Your task to perform on an android device: check out phone information Image 0: 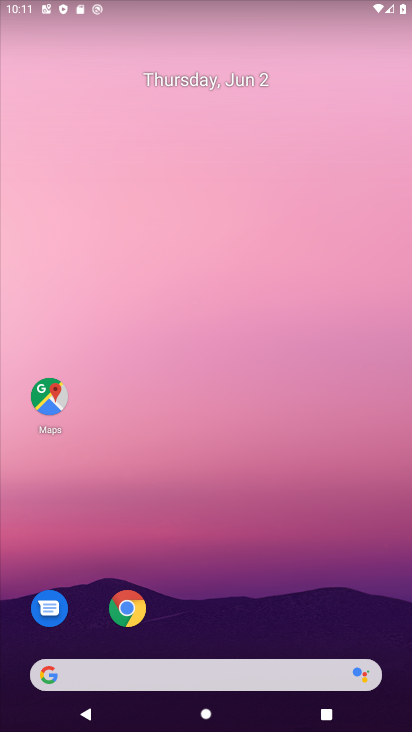
Step 0: drag from (173, 652) to (270, 107)
Your task to perform on an android device: check out phone information Image 1: 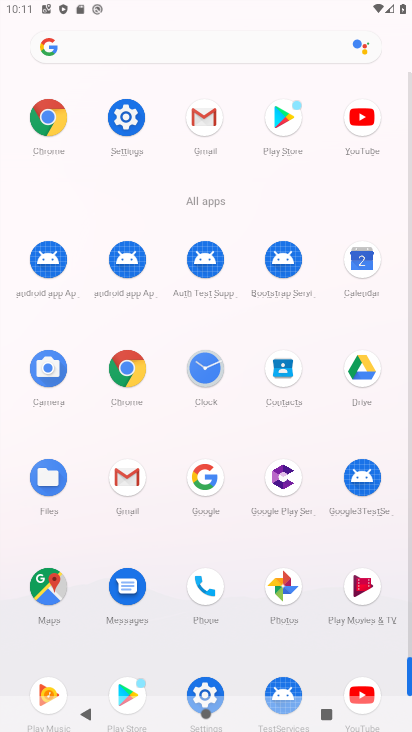
Step 1: drag from (204, 591) to (247, 340)
Your task to perform on an android device: check out phone information Image 2: 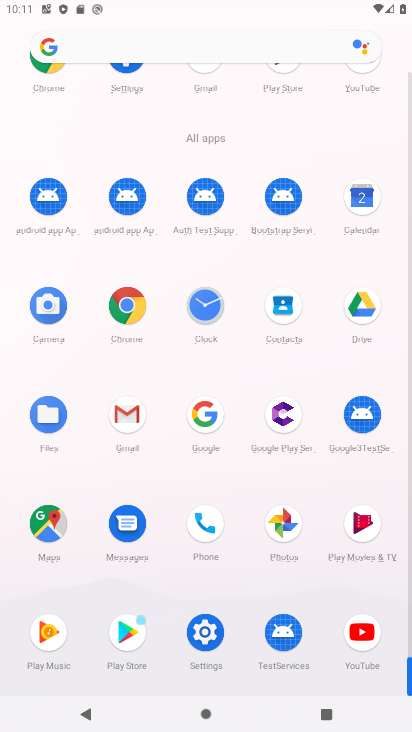
Step 2: click (199, 642)
Your task to perform on an android device: check out phone information Image 3: 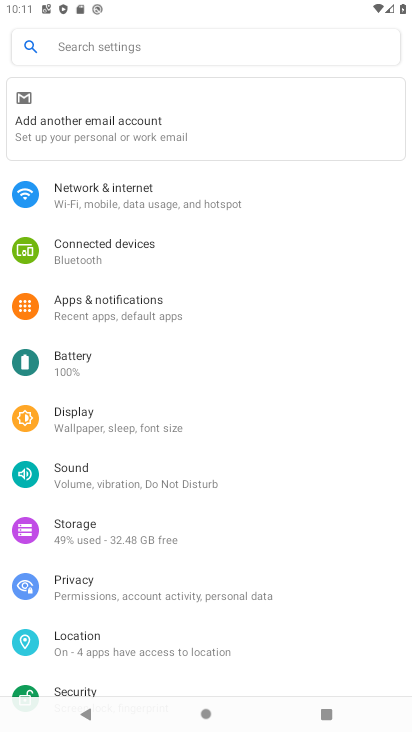
Step 3: drag from (175, 693) to (345, 170)
Your task to perform on an android device: check out phone information Image 4: 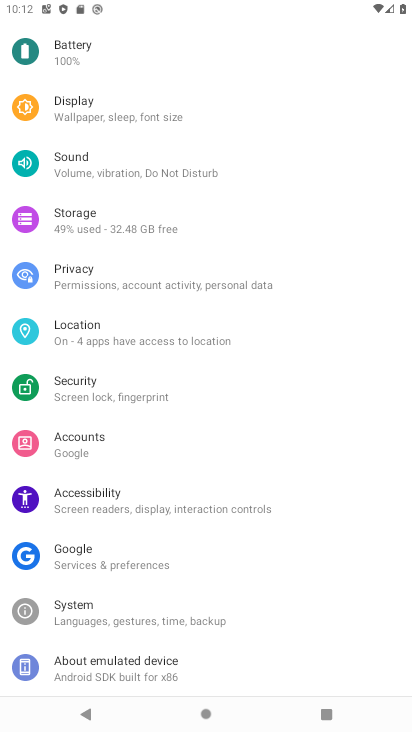
Step 4: click (178, 678)
Your task to perform on an android device: check out phone information Image 5: 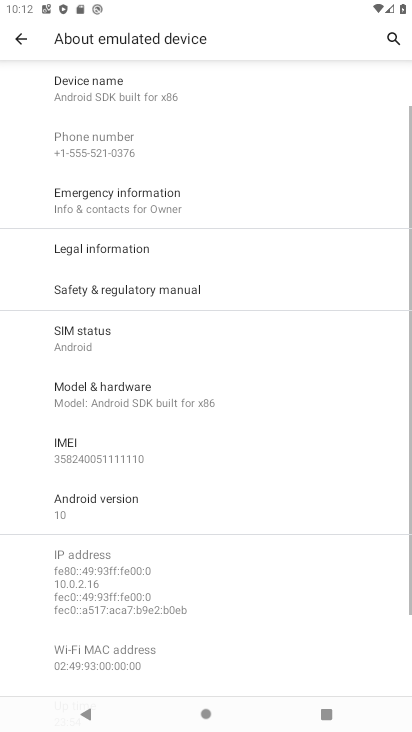
Step 5: task complete